Your task to perform on an android device: turn off picture-in-picture Image 0: 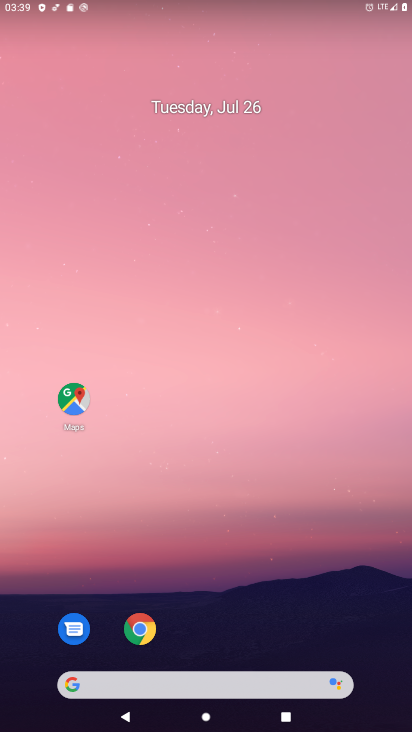
Step 0: click (140, 629)
Your task to perform on an android device: turn off picture-in-picture Image 1: 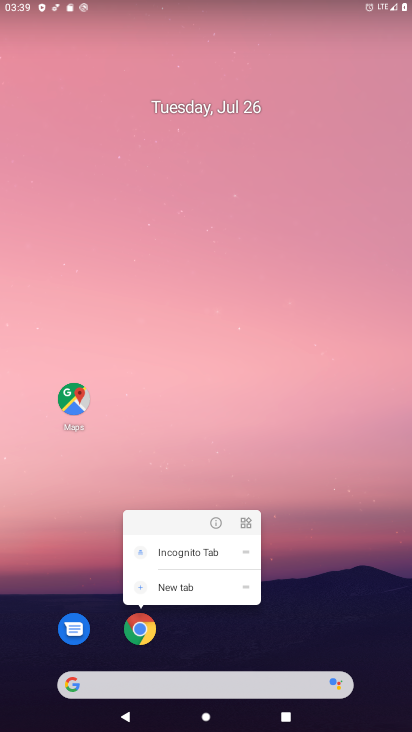
Step 1: click (218, 518)
Your task to perform on an android device: turn off picture-in-picture Image 2: 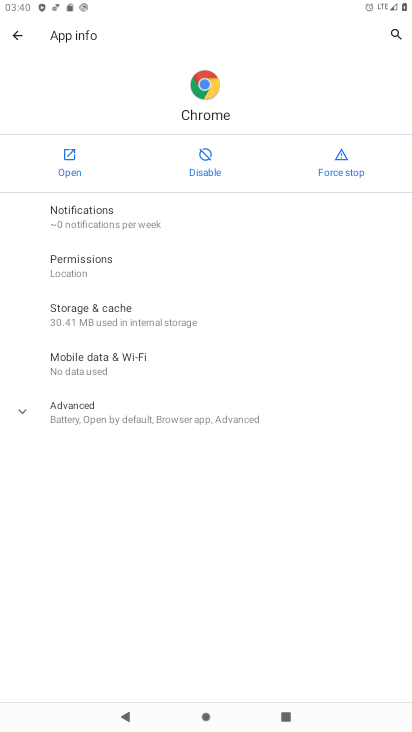
Step 2: click (76, 411)
Your task to perform on an android device: turn off picture-in-picture Image 3: 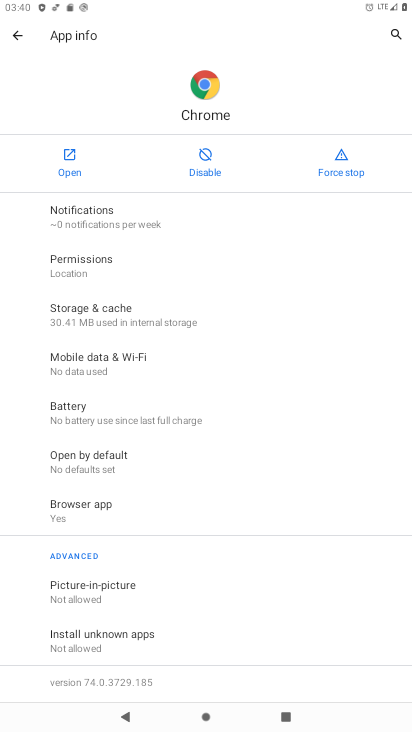
Step 3: drag from (236, 610) to (240, 353)
Your task to perform on an android device: turn off picture-in-picture Image 4: 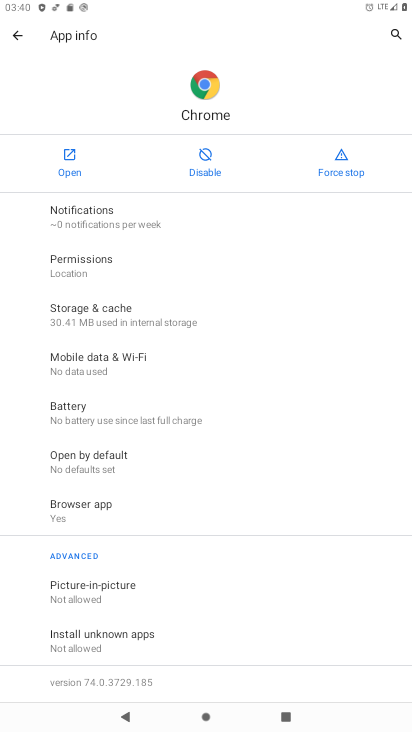
Step 4: click (124, 579)
Your task to perform on an android device: turn off picture-in-picture Image 5: 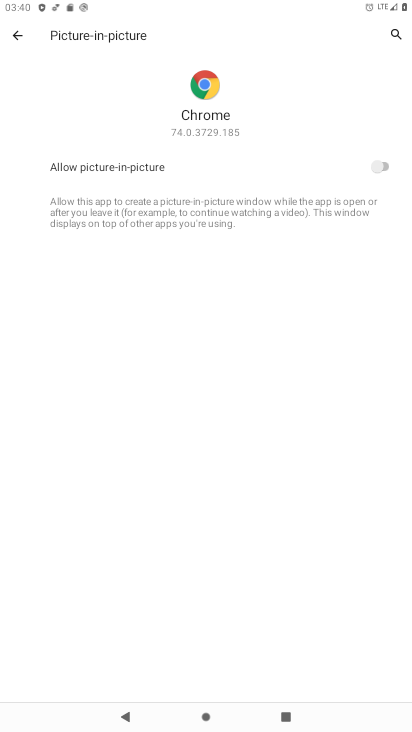
Step 5: task complete